Your task to perform on an android device: add a contact Image 0: 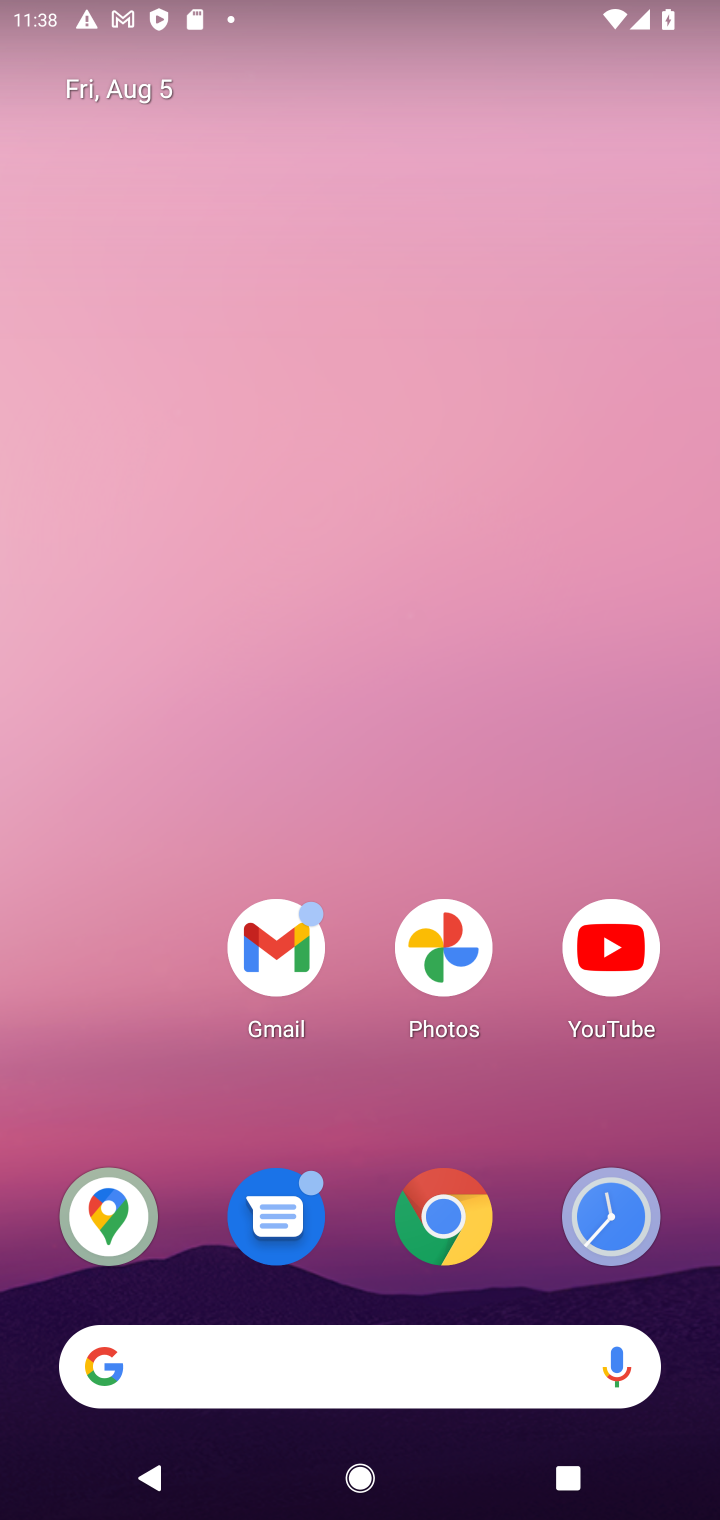
Step 0: drag from (422, 1438) to (367, 0)
Your task to perform on an android device: add a contact Image 1: 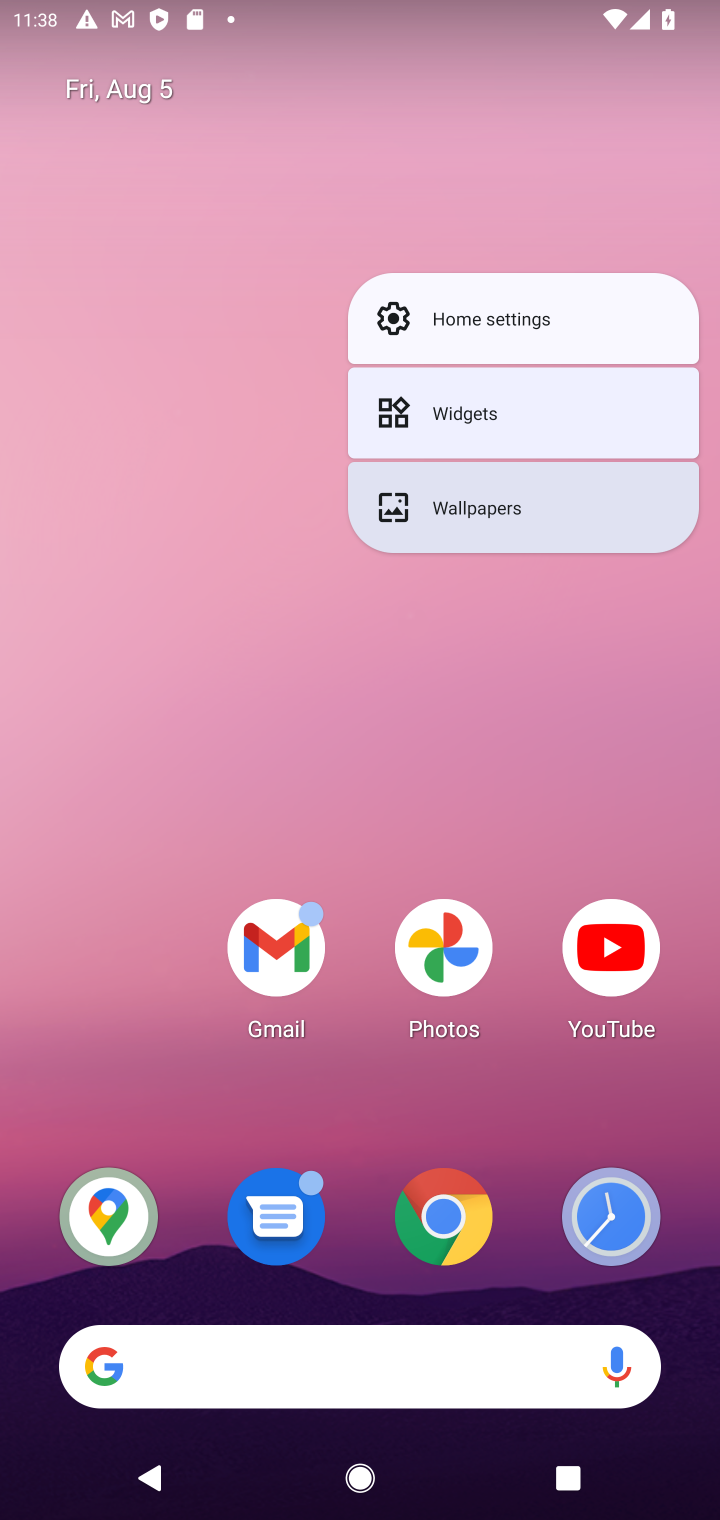
Step 1: drag from (257, 1485) to (178, 130)
Your task to perform on an android device: add a contact Image 2: 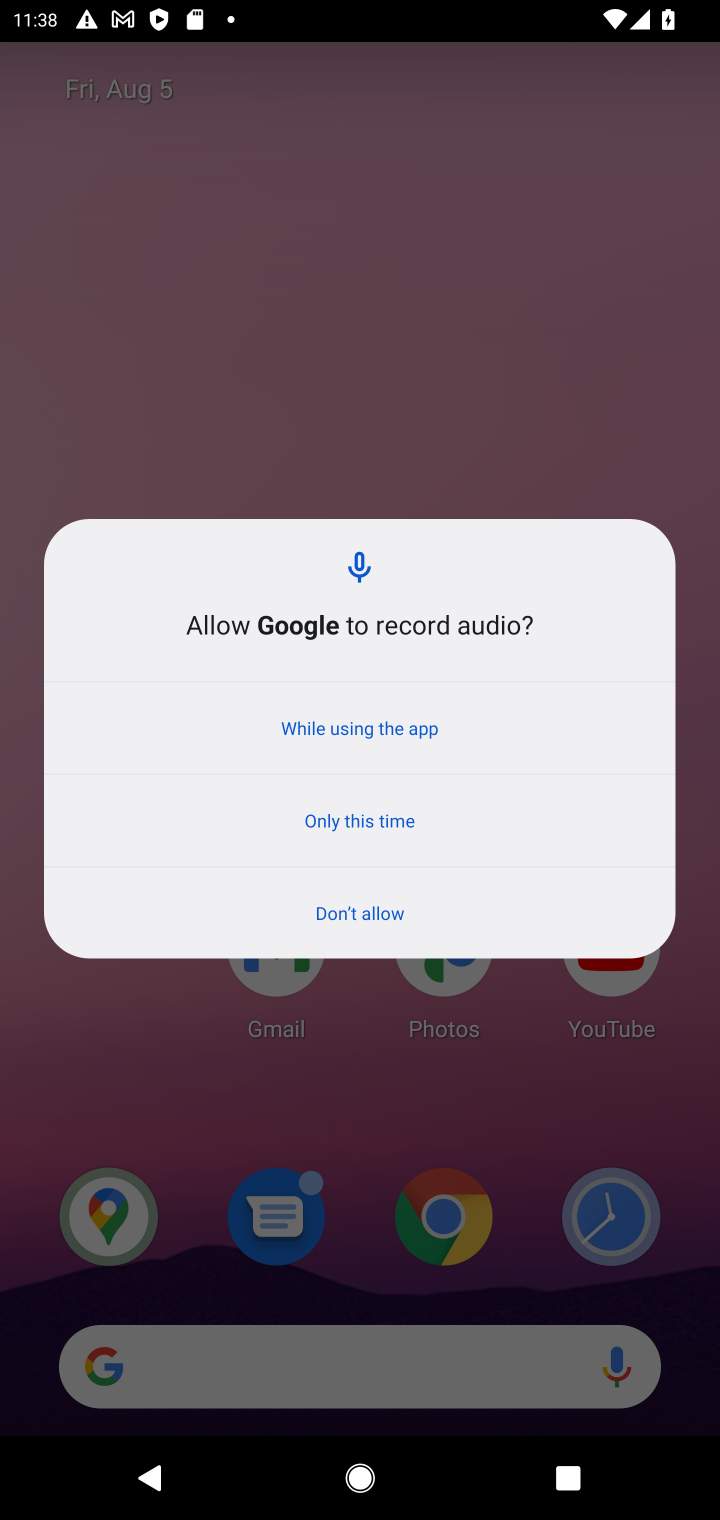
Step 2: click (547, 1128)
Your task to perform on an android device: add a contact Image 3: 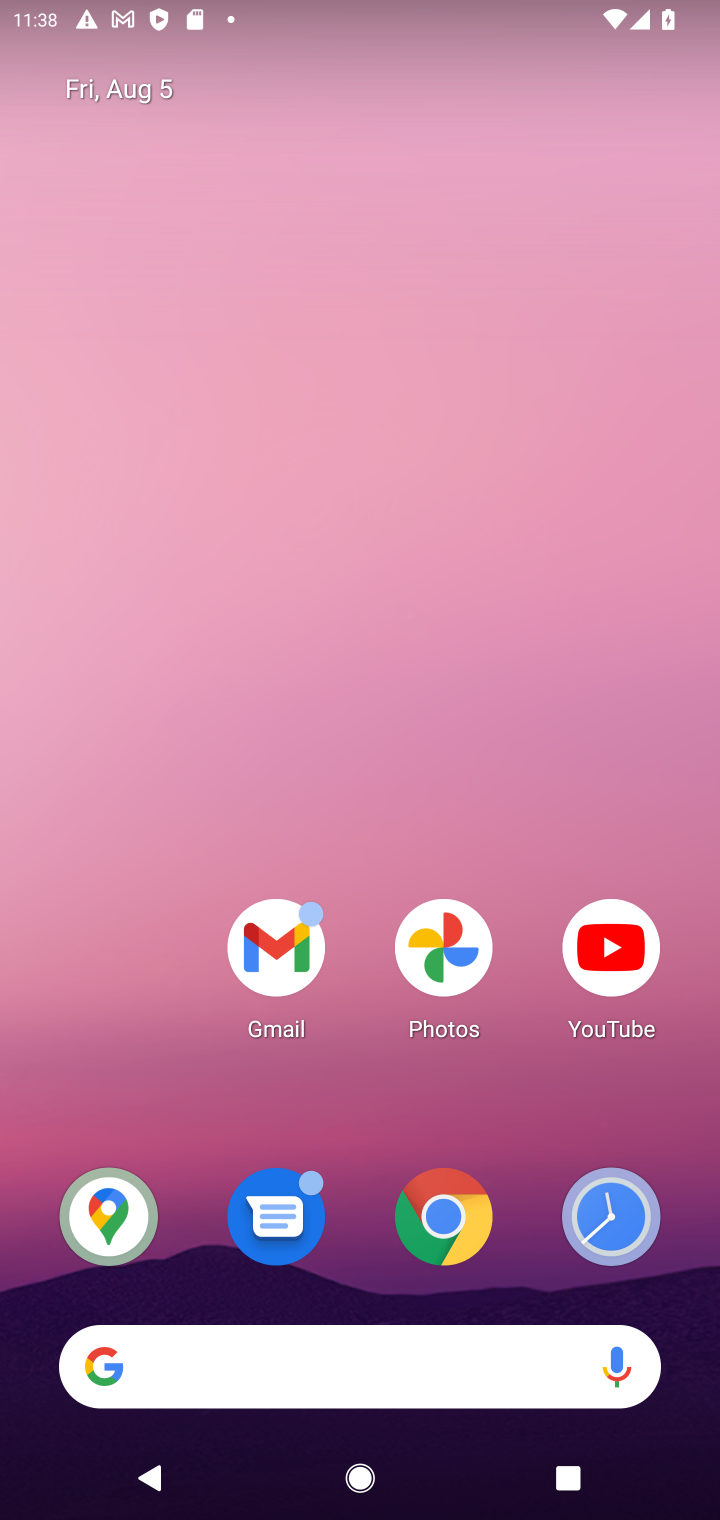
Step 3: drag from (508, 1483) to (585, 122)
Your task to perform on an android device: add a contact Image 4: 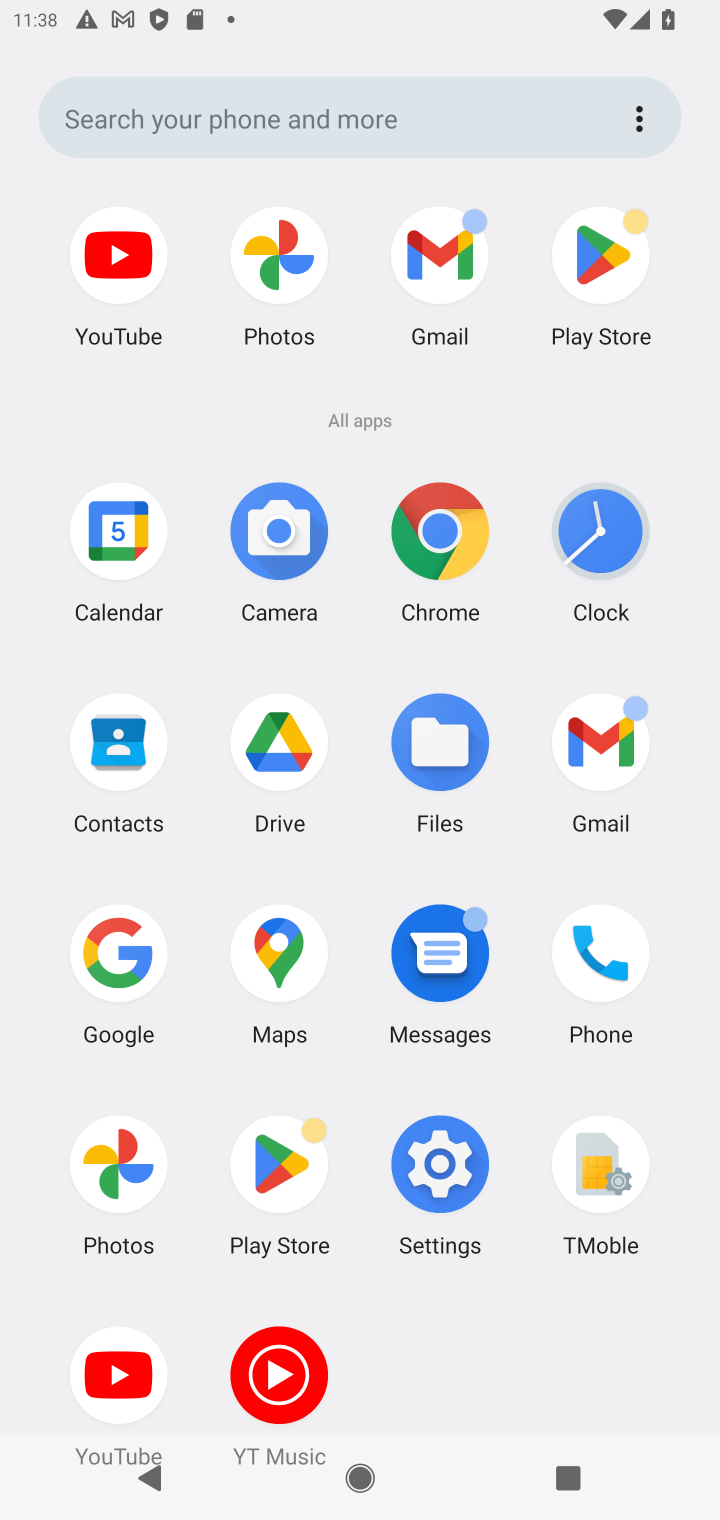
Step 4: click (129, 756)
Your task to perform on an android device: add a contact Image 5: 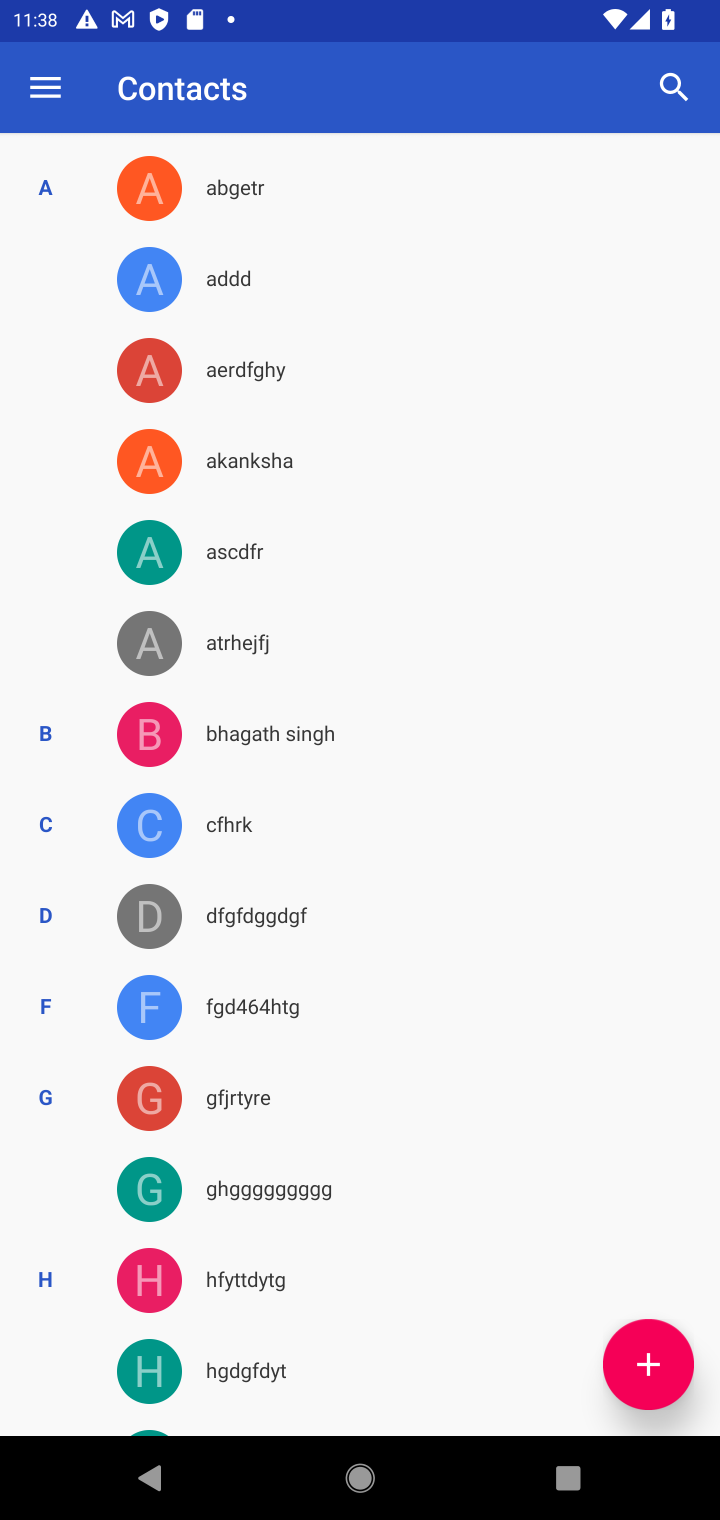
Step 5: click (668, 1378)
Your task to perform on an android device: add a contact Image 6: 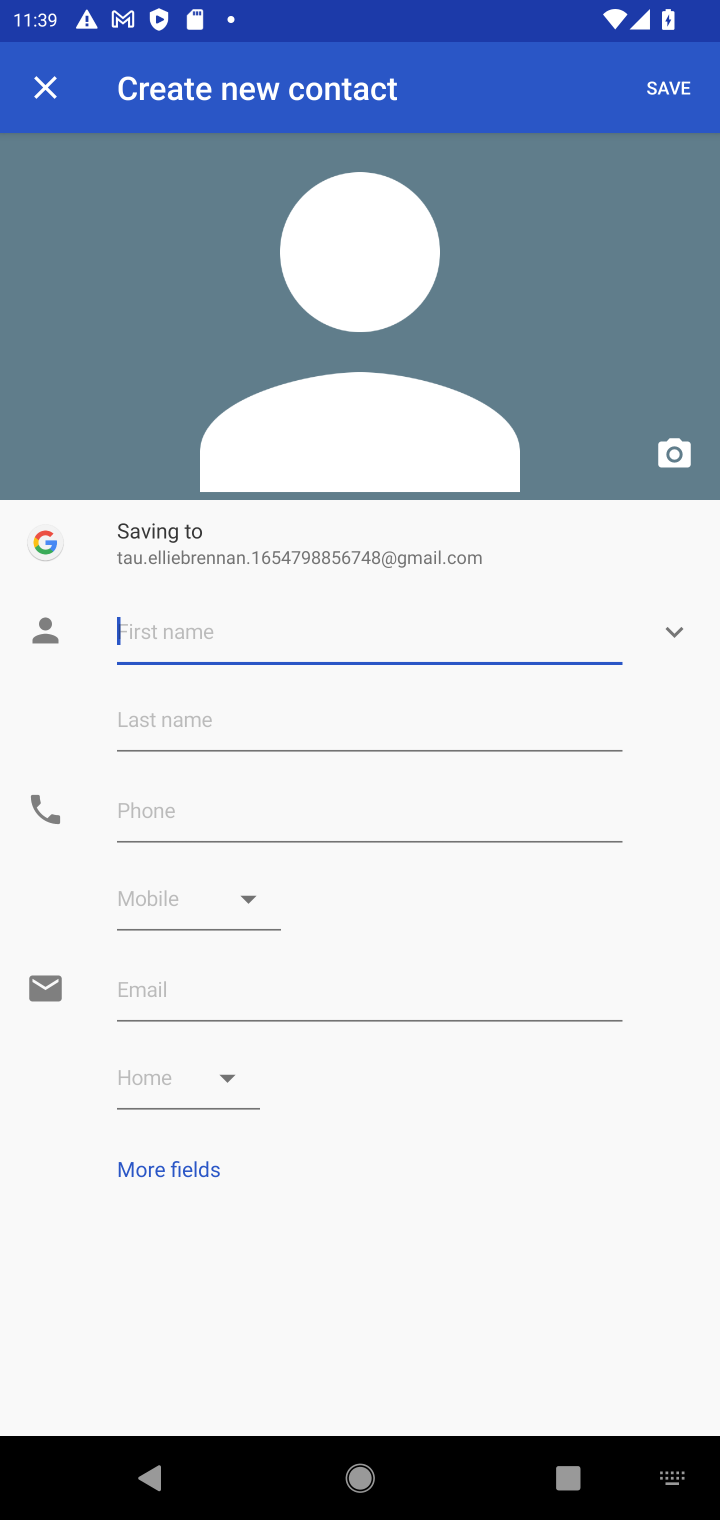
Step 6: type "vnb "
Your task to perform on an android device: add a contact Image 7: 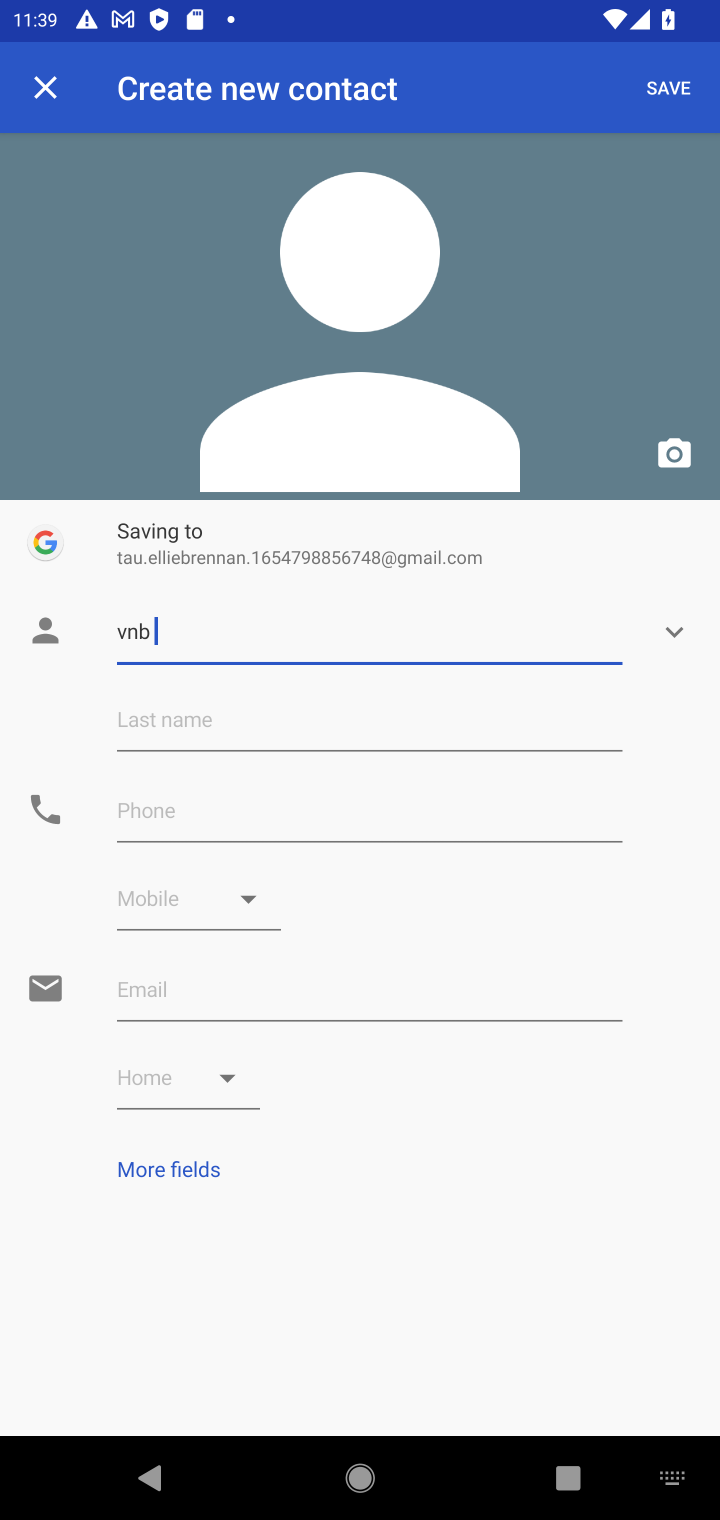
Step 7: click (266, 816)
Your task to perform on an android device: add a contact Image 8: 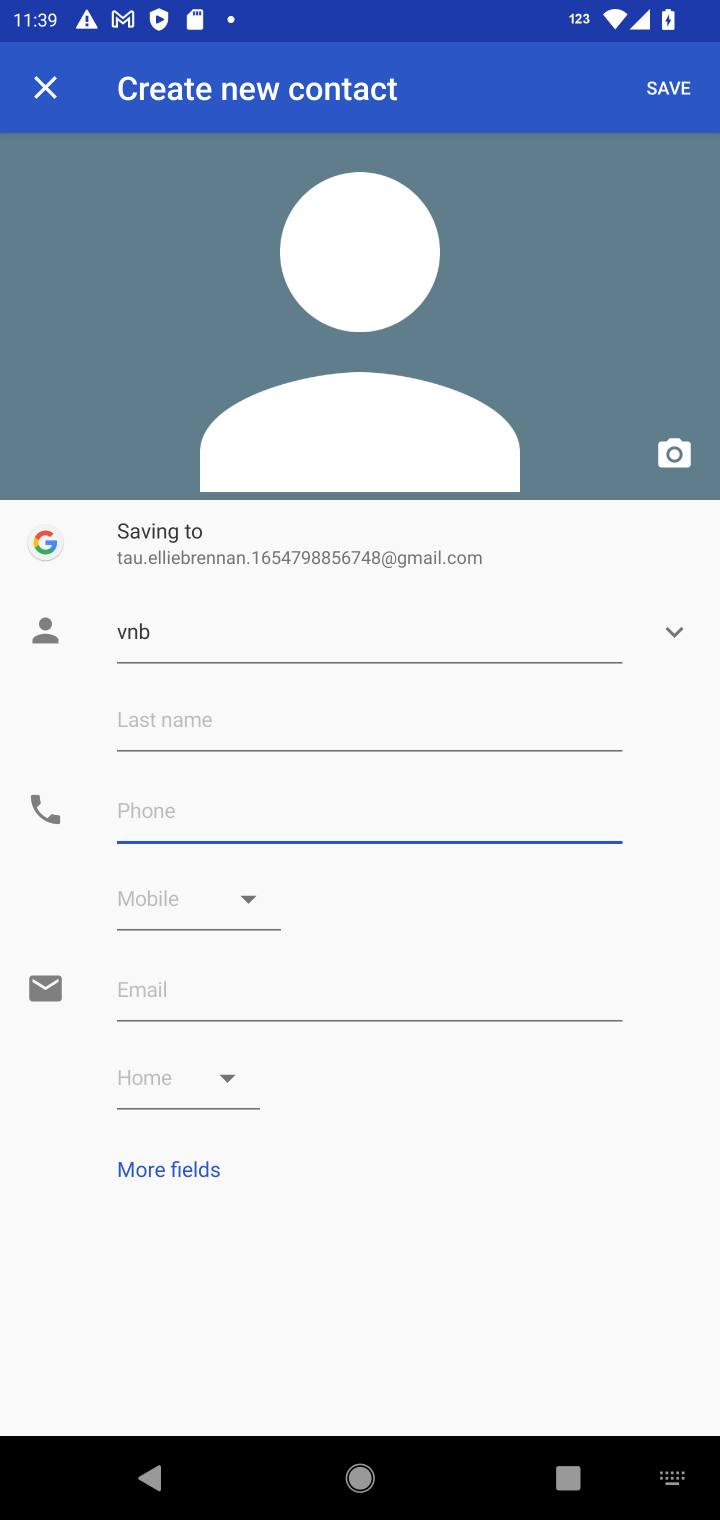
Step 8: type "777"
Your task to perform on an android device: add a contact Image 9: 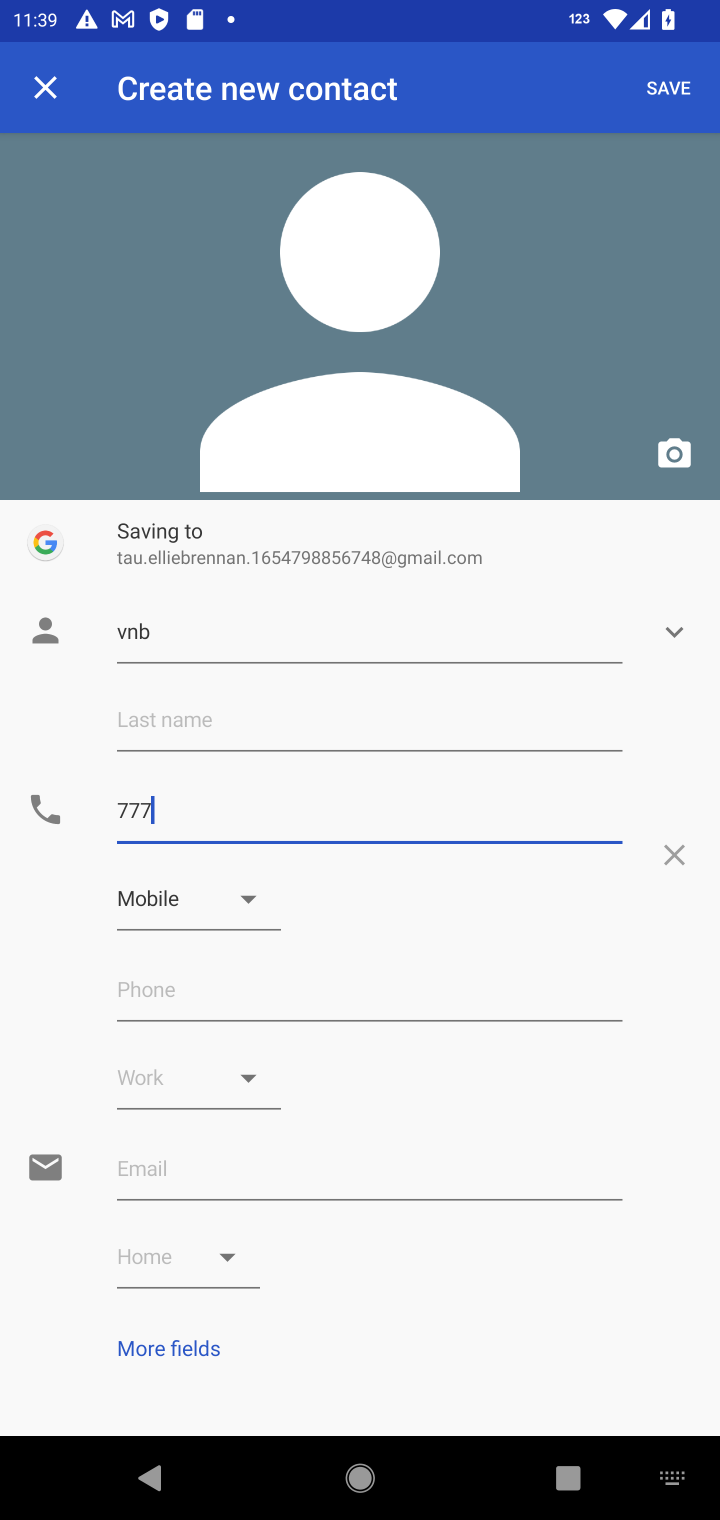
Step 9: click (681, 83)
Your task to perform on an android device: add a contact Image 10: 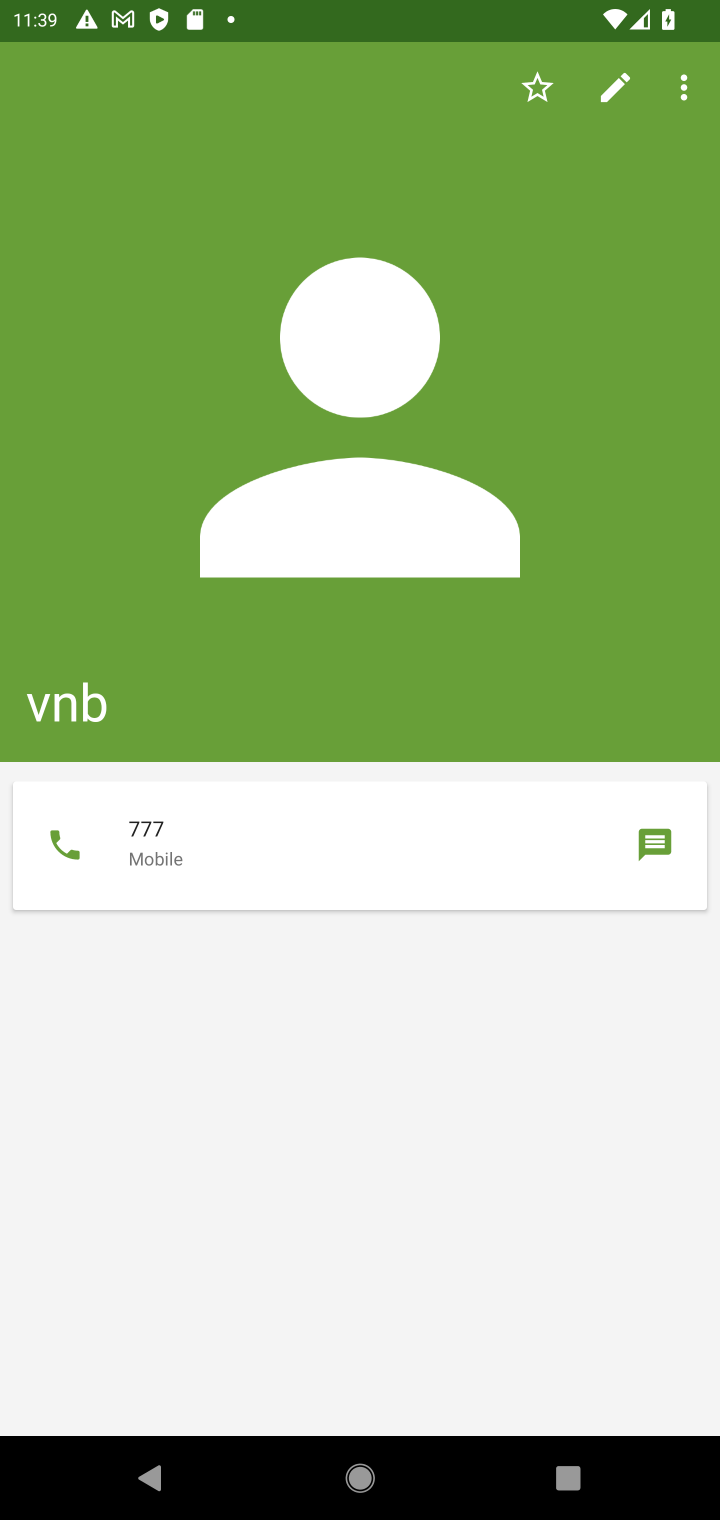
Step 10: task complete